Your task to perform on an android device: open chrome and create a bookmark for the current page Image 0: 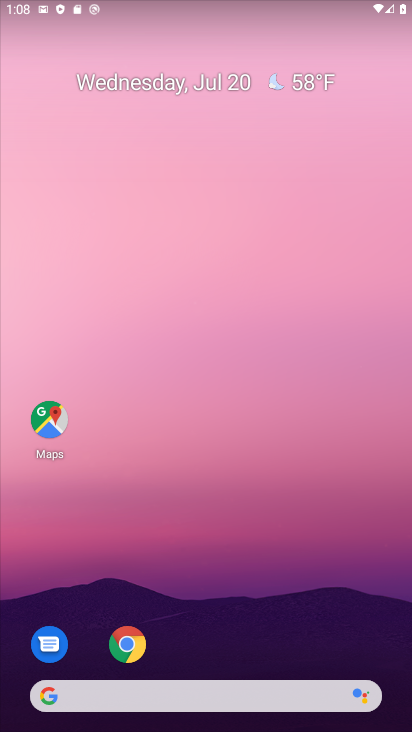
Step 0: click (126, 647)
Your task to perform on an android device: open chrome and create a bookmark for the current page Image 1: 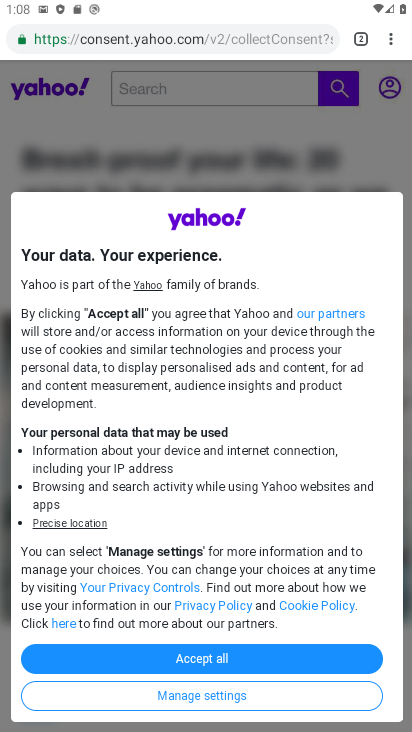
Step 1: click (252, 39)
Your task to perform on an android device: open chrome and create a bookmark for the current page Image 2: 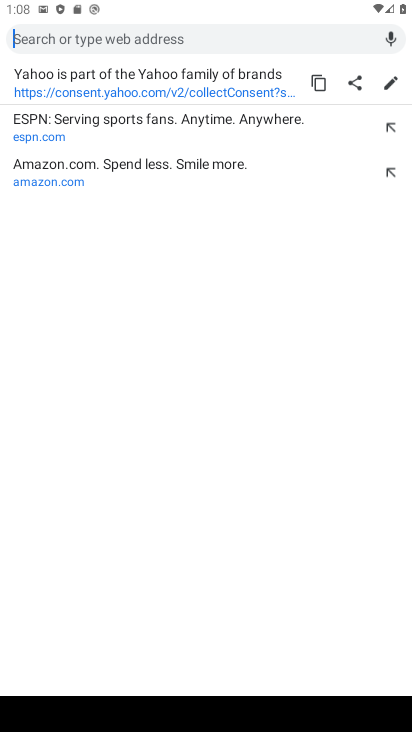
Step 2: press back button
Your task to perform on an android device: open chrome and create a bookmark for the current page Image 3: 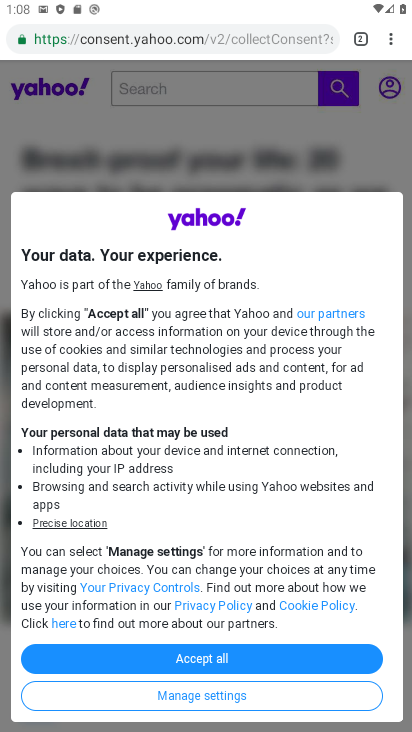
Step 3: click (389, 35)
Your task to perform on an android device: open chrome and create a bookmark for the current page Image 4: 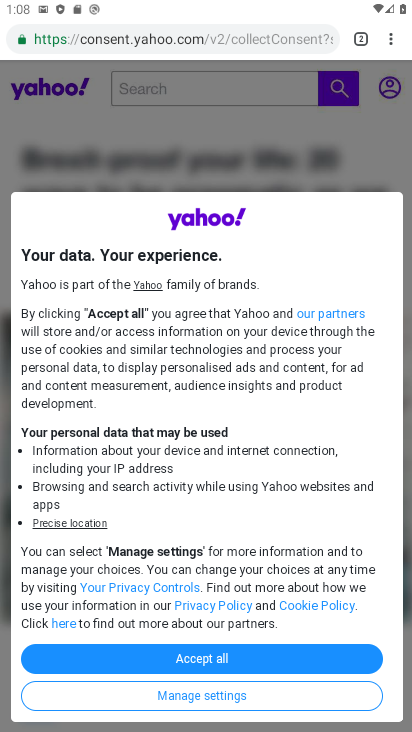
Step 4: click (388, 37)
Your task to perform on an android device: open chrome and create a bookmark for the current page Image 5: 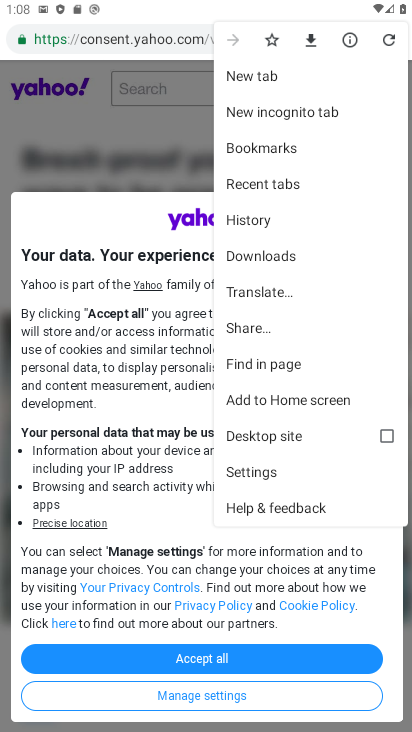
Step 5: click (269, 39)
Your task to perform on an android device: open chrome and create a bookmark for the current page Image 6: 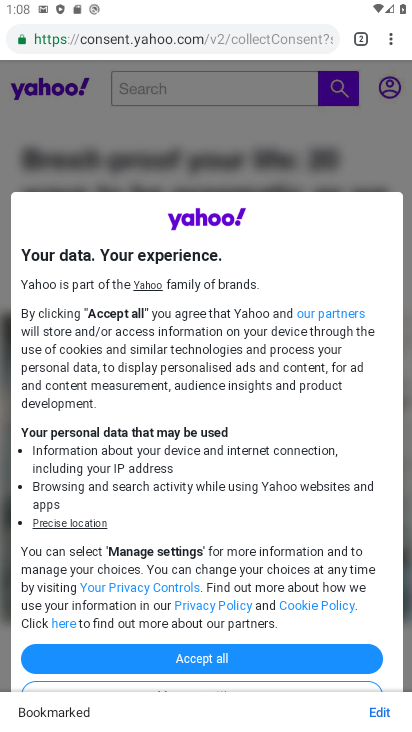
Step 6: task complete